Your task to perform on an android device: check storage Image 0: 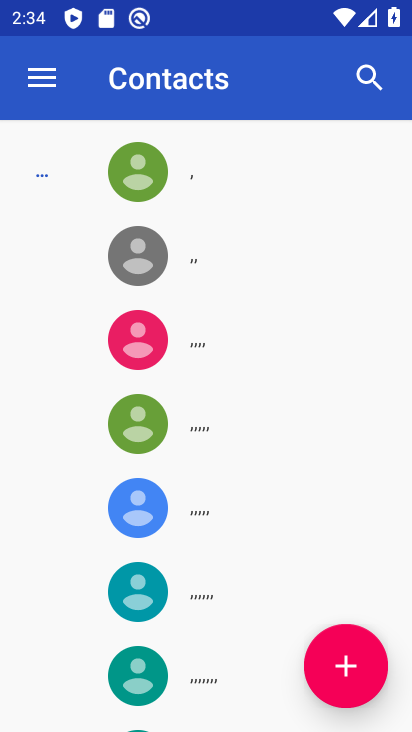
Step 0: press home button
Your task to perform on an android device: check storage Image 1: 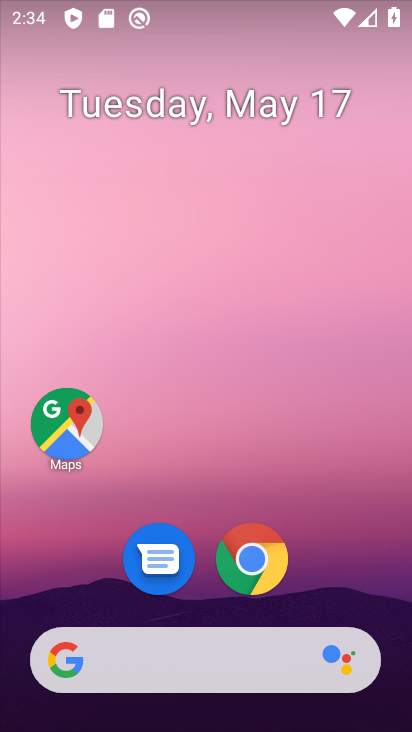
Step 1: drag from (346, 603) to (284, 116)
Your task to perform on an android device: check storage Image 2: 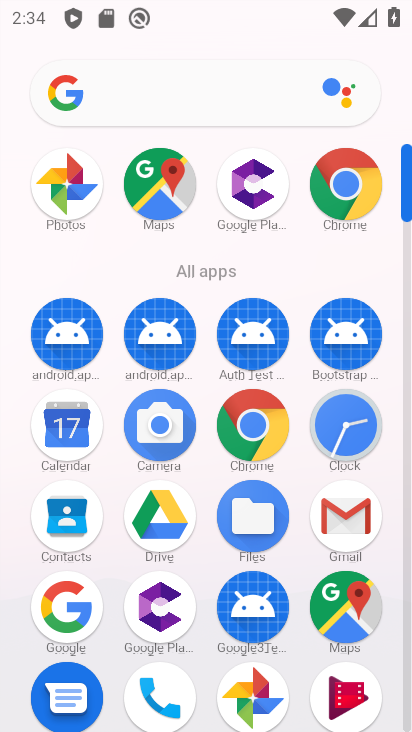
Step 2: click (402, 662)
Your task to perform on an android device: check storage Image 3: 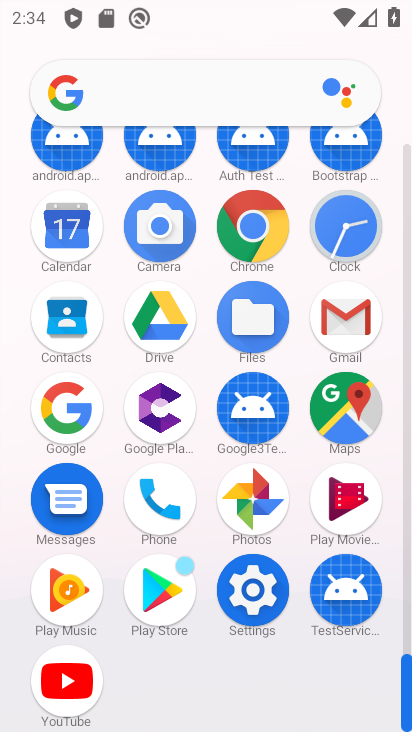
Step 3: click (231, 558)
Your task to perform on an android device: check storage Image 4: 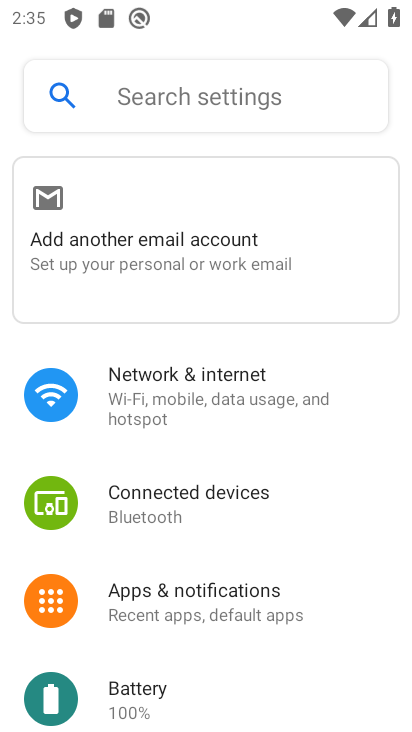
Step 4: drag from (270, 703) to (262, 224)
Your task to perform on an android device: check storage Image 5: 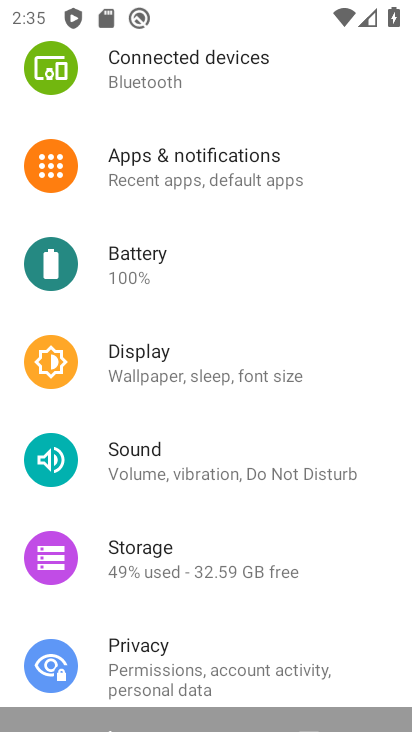
Step 5: click (302, 579)
Your task to perform on an android device: check storage Image 6: 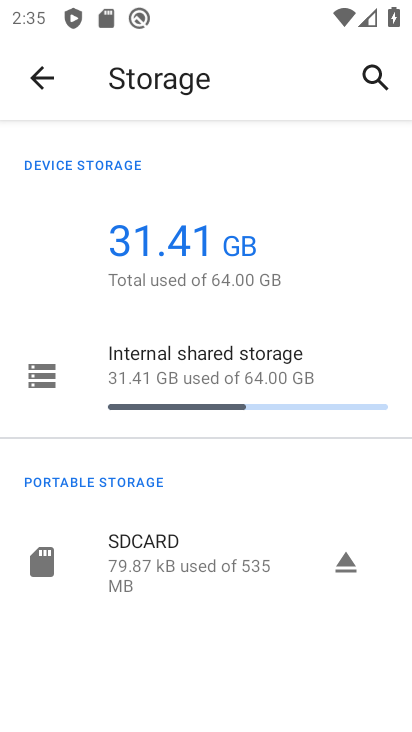
Step 6: task complete